Your task to perform on an android device: What's the weather? Image 0: 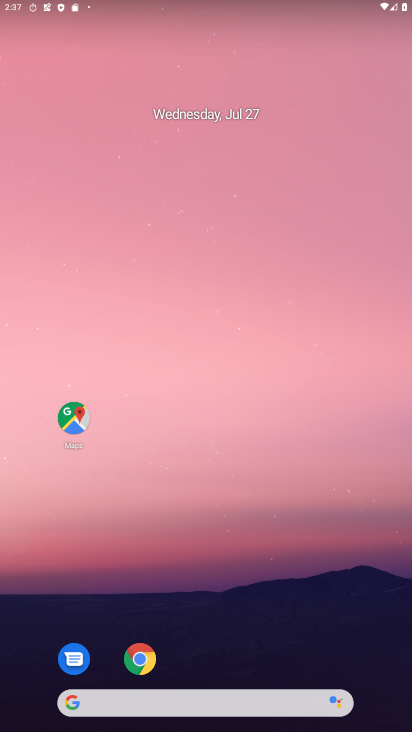
Step 0: drag from (226, 713) to (270, 131)
Your task to perform on an android device: What's the weather? Image 1: 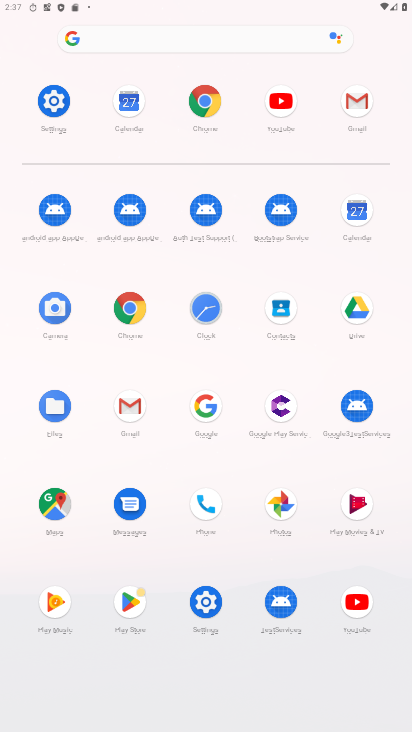
Step 1: click (204, 401)
Your task to perform on an android device: What's the weather? Image 2: 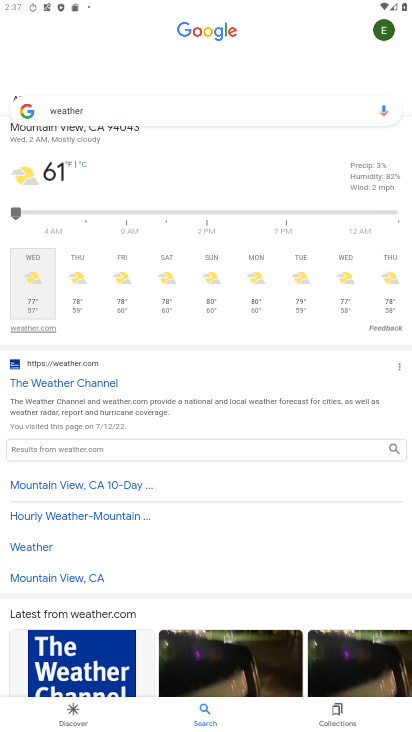
Step 2: task complete